Your task to perform on an android device: Open calendar and show me the fourth week of next month Image 0: 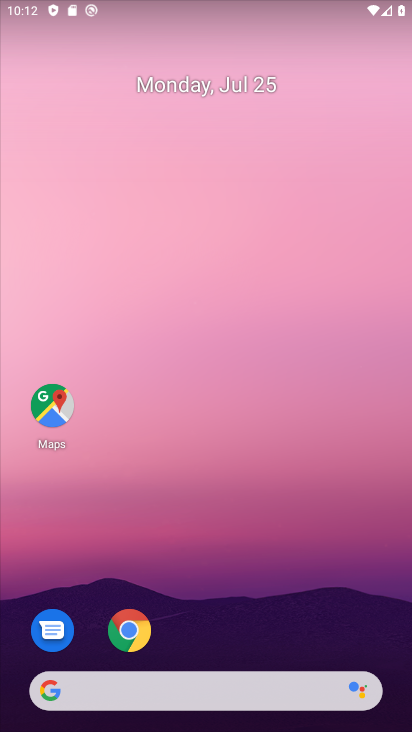
Step 0: drag from (231, 574) to (253, 66)
Your task to perform on an android device: Open calendar and show me the fourth week of next month Image 1: 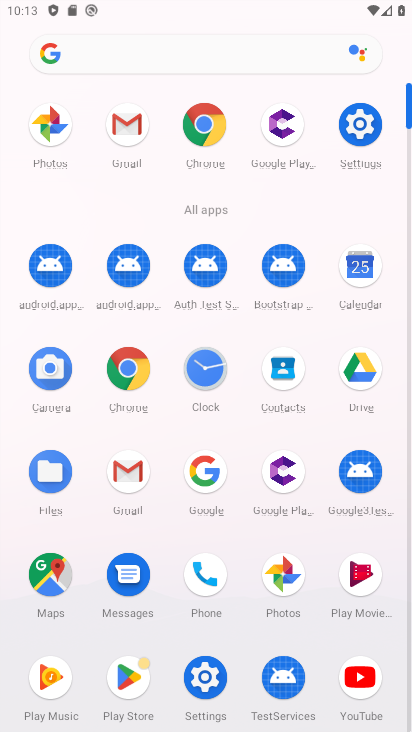
Step 1: click (364, 276)
Your task to perform on an android device: Open calendar and show me the fourth week of next month Image 2: 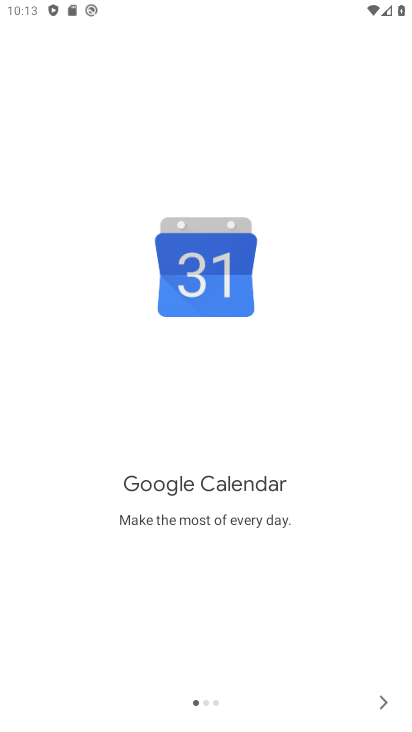
Step 2: click (374, 703)
Your task to perform on an android device: Open calendar and show me the fourth week of next month Image 3: 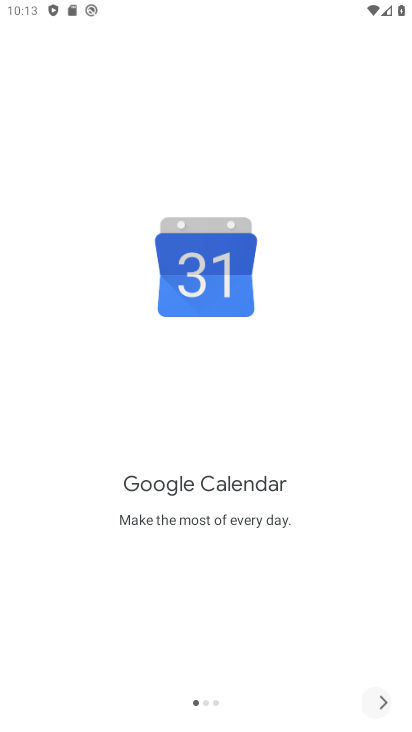
Step 3: click (374, 703)
Your task to perform on an android device: Open calendar and show me the fourth week of next month Image 4: 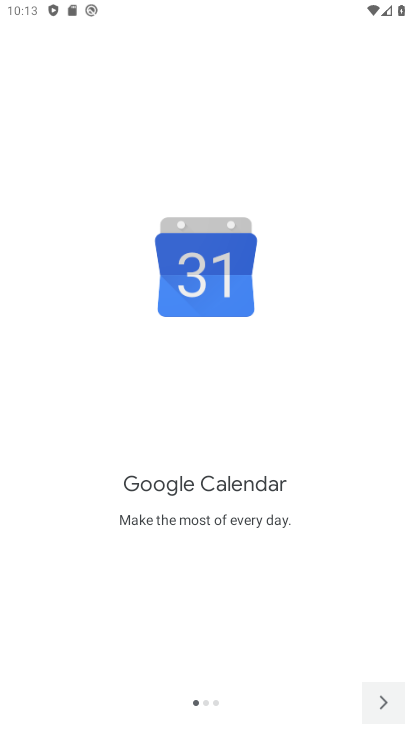
Step 4: click (374, 703)
Your task to perform on an android device: Open calendar and show me the fourth week of next month Image 5: 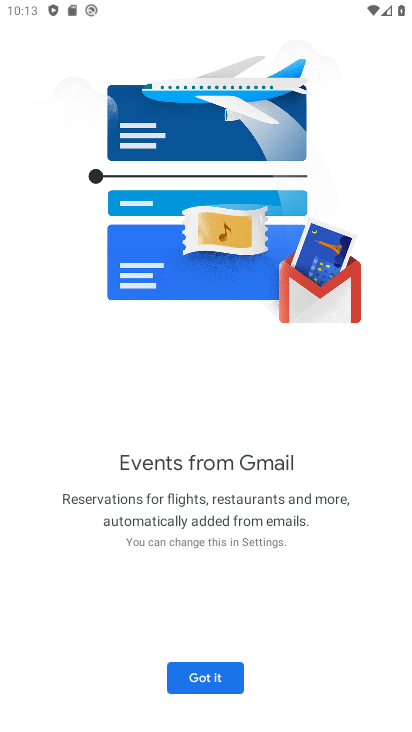
Step 5: click (215, 675)
Your task to perform on an android device: Open calendar and show me the fourth week of next month Image 6: 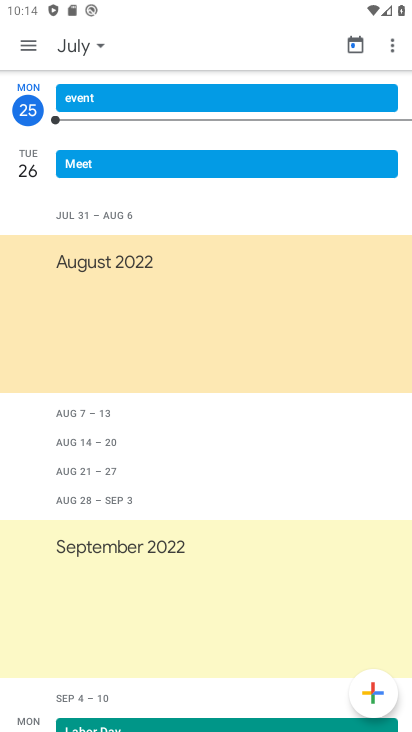
Step 6: click (83, 41)
Your task to perform on an android device: Open calendar and show me the fourth week of next month Image 7: 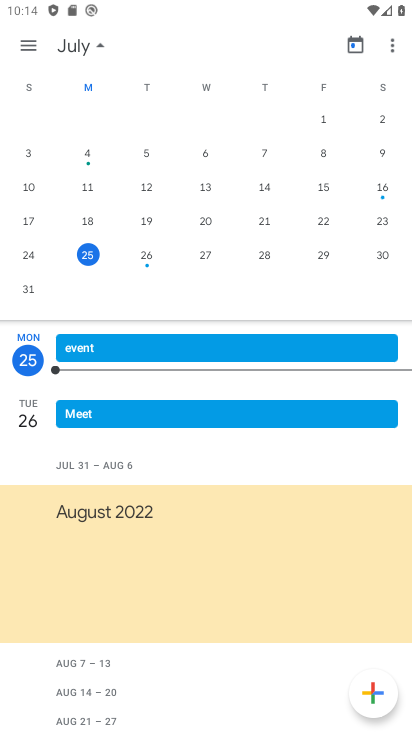
Step 7: drag from (375, 252) to (0, 209)
Your task to perform on an android device: Open calendar and show me the fourth week of next month Image 8: 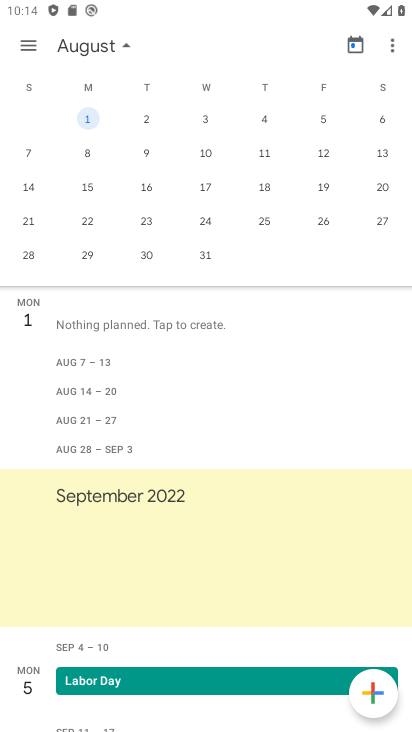
Step 8: click (90, 221)
Your task to perform on an android device: Open calendar and show me the fourth week of next month Image 9: 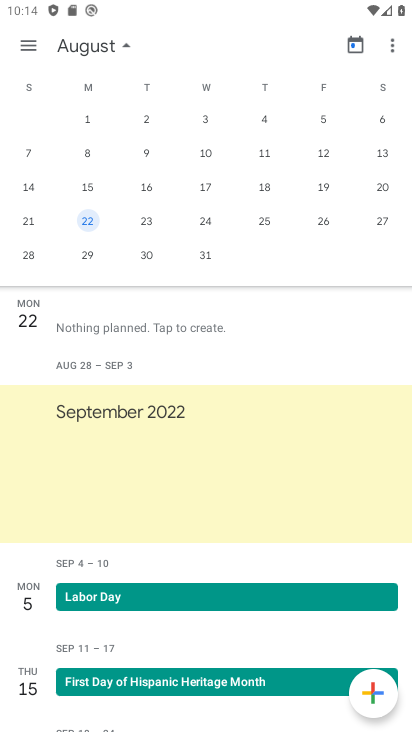
Step 9: click (27, 44)
Your task to perform on an android device: Open calendar and show me the fourth week of next month Image 10: 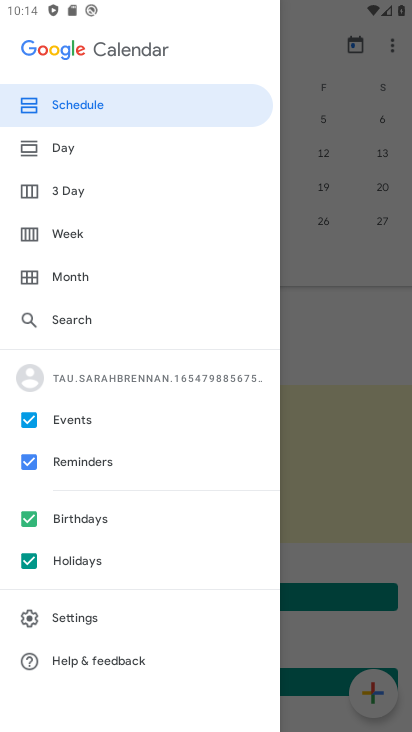
Step 10: click (71, 237)
Your task to perform on an android device: Open calendar and show me the fourth week of next month Image 11: 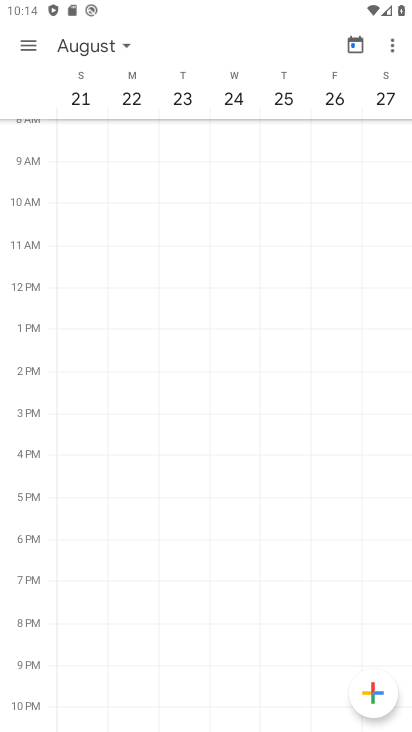
Step 11: task complete